Your task to perform on an android device: manage bookmarks in the chrome app Image 0: 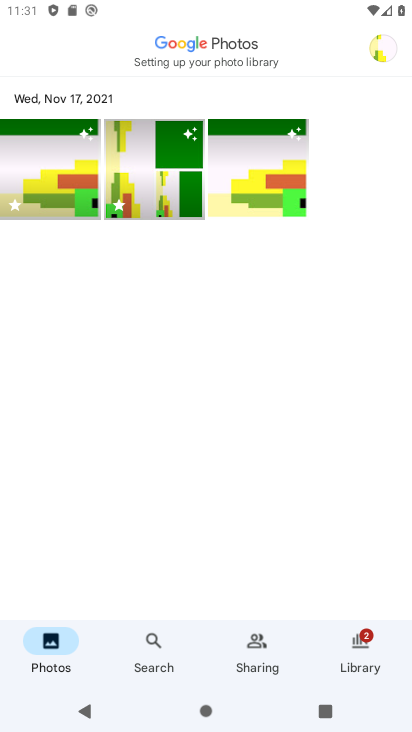
Step 0: press home button
Your task to perform on an android device: manage bookmarks in the chrome app Image 1: 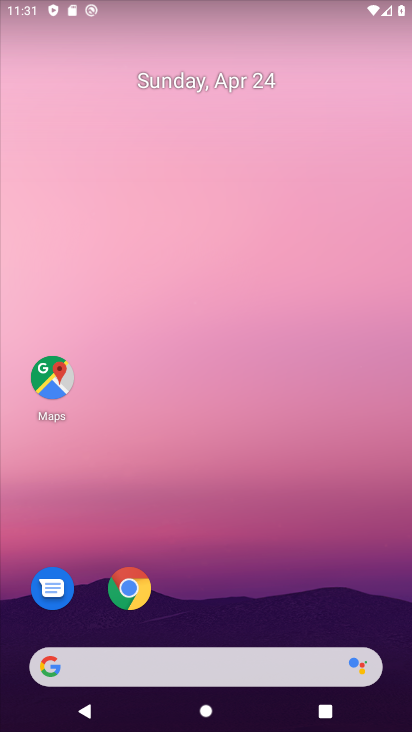
Step 1: click (134, 587)
Your task to perform on an android device: manage bookmarks in the chrome app Image 2: 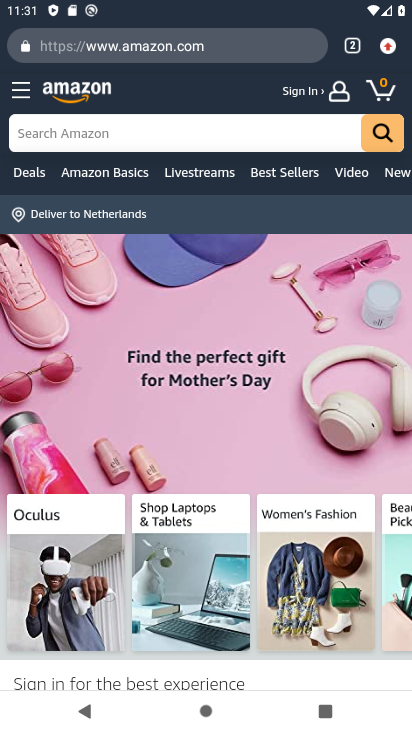
Step 2: click (389, 43)
Your task to perform on an android device: manage bookmarks in the chrome app Image 3: 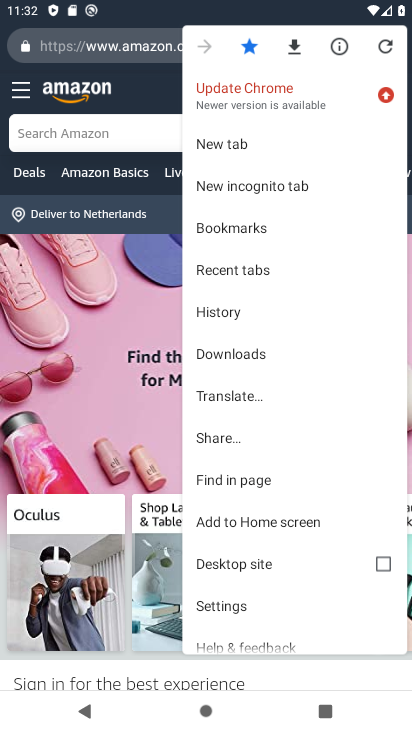
Step 3: click (256, 233)
Your task to perform on an android device: manage bookmarks in the chrome app Image 4: 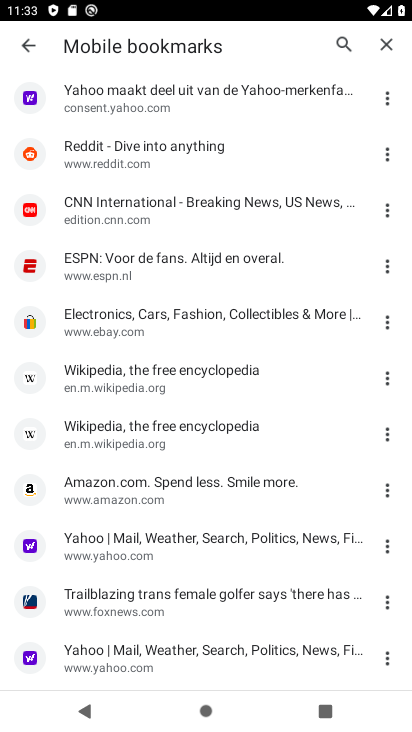
Step 4: click (391, 100)
Your task to perform on an android device: manage bookmarks in the chrome app Image 5: 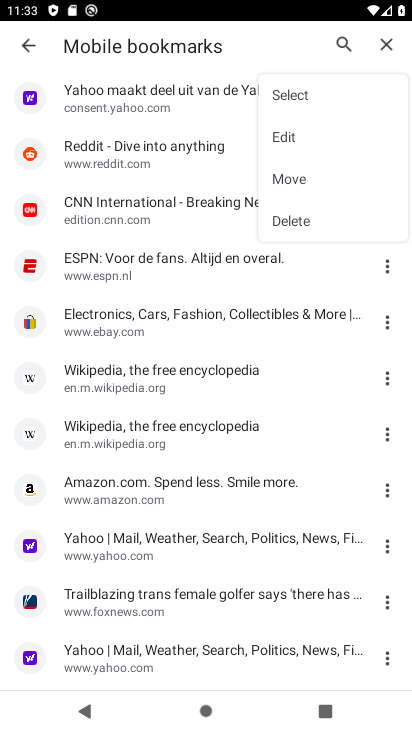
Step 5: click (303, 93)
Your task to perform on an android device: manage bookmarks in the chrome app Image 6: 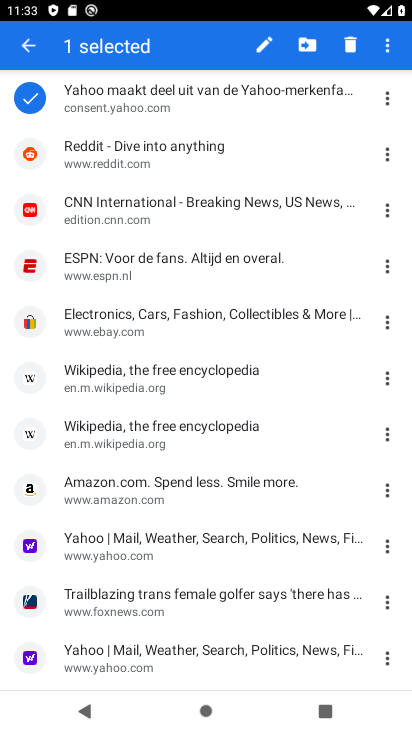
Step 6: click (83, 328)
Your task to perform on an android device: manage bookmarks in the chrome app Image 7: 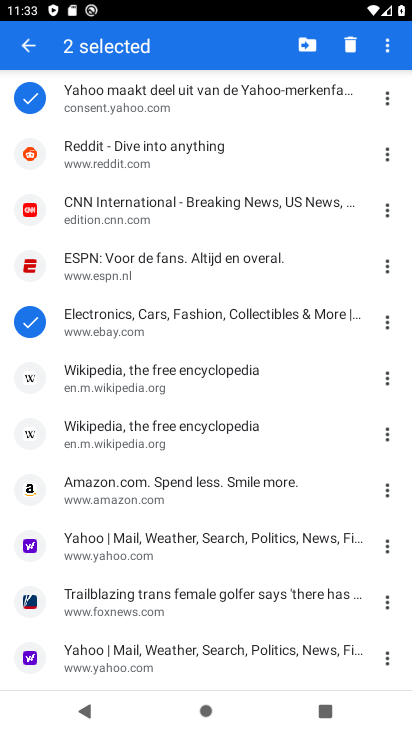
Step 7: click (118, 596)
Your task to perform on an android device: manage bookmarks in the chrome app Image 8: 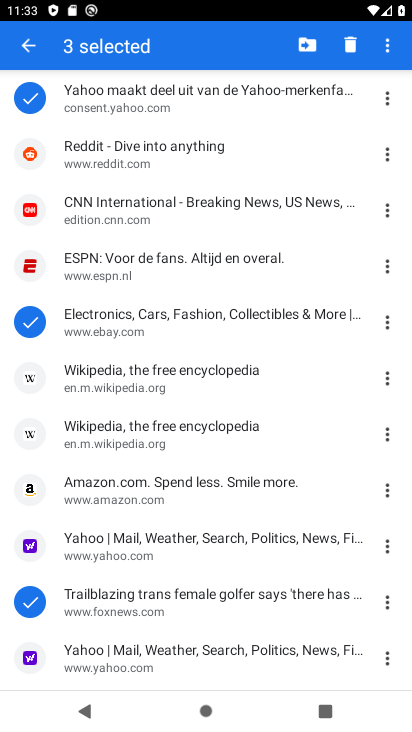
Step 8: click (40, 103)
Your task to perform on an android device: manage bookmarks in the chrome app Image 9: 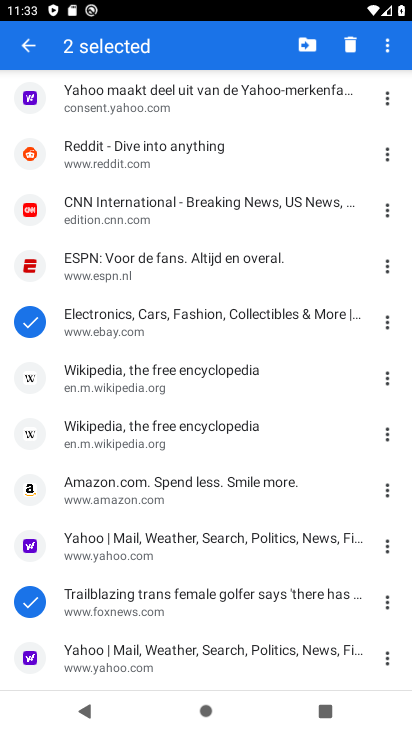
Step 9: click (356, 43)
Your task to perform on an android device: manage bookmarks in the chrome app Image 10: 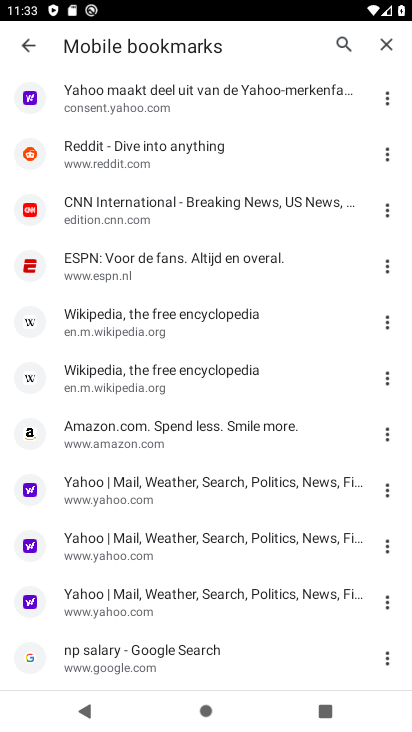
Step 10: task complete